Your task to perform on an android device: star an email in the gmail app Image 0: 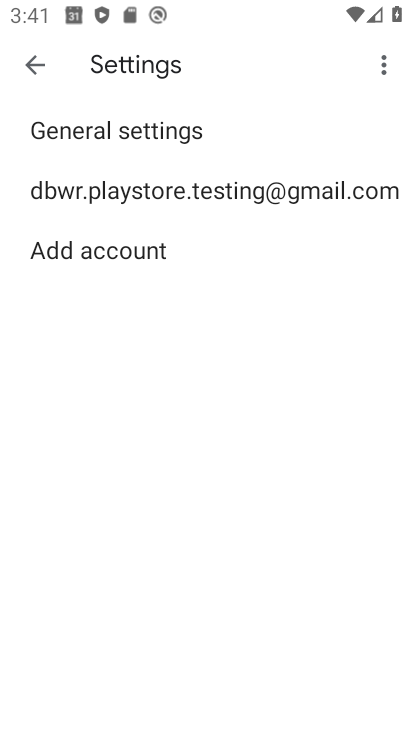
Step 0: press home button
Your task to perform on an android device: star an email in the gmail app Image 1: 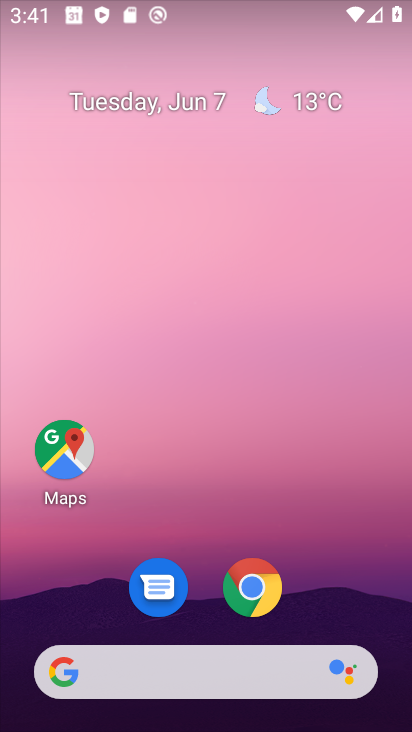
Step 1: drag from (209, 497) to (201, 49)
Your task to perform on an android device: star an email in the gmail app Image 2: 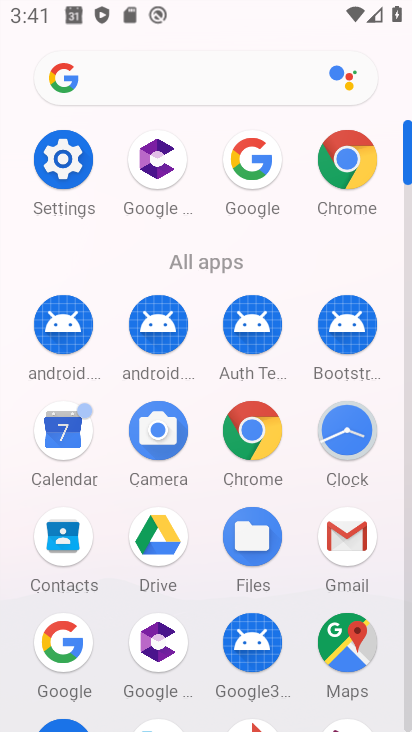
Step 2: click (350, 559)
Your task to perform on an android device: star an email in the gmail app Image 3: 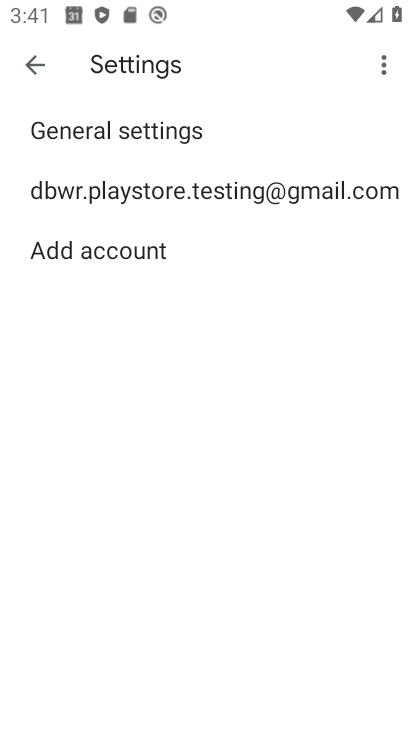
Step 3: click (40, 65)
Your task to perform on an android device: star an email in the gmail app Image 4: 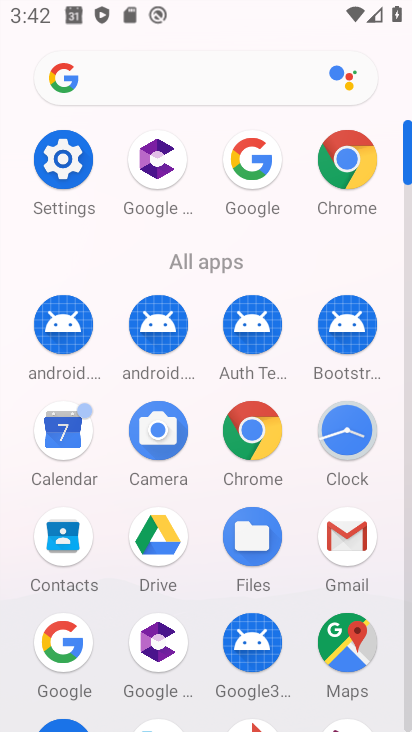
Step 4: click (345, 540)
Your task to perform on an android device: star an email in the gmail app Image 5: 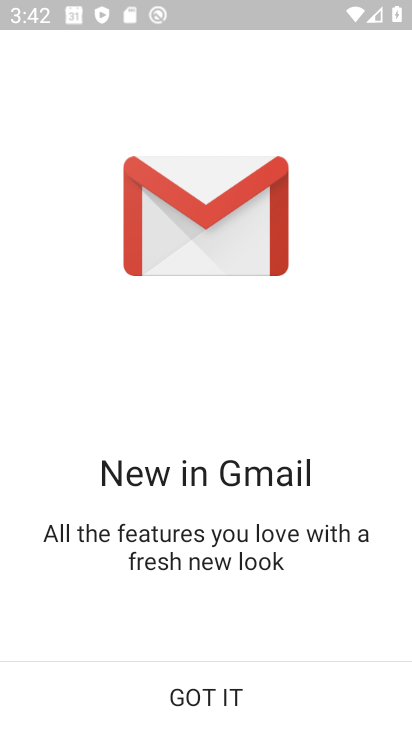
Step 5: click (277, 687)
Your task to perform on an android device: star an email in the gmail app Image 6: 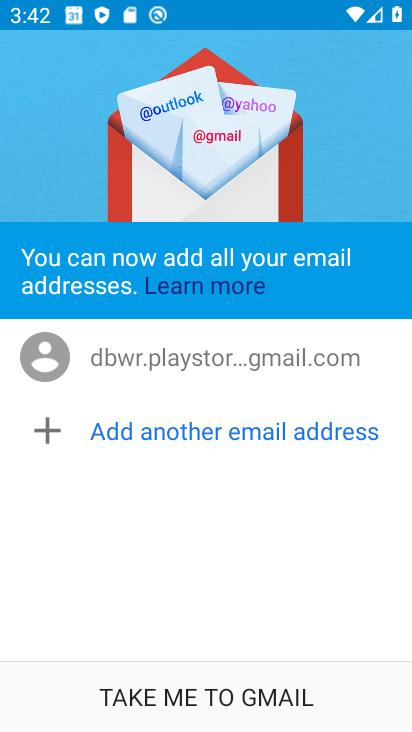
Step 6: click (236, 687)
Your task to perform on an android device: star an email in the gmail app Image 7: 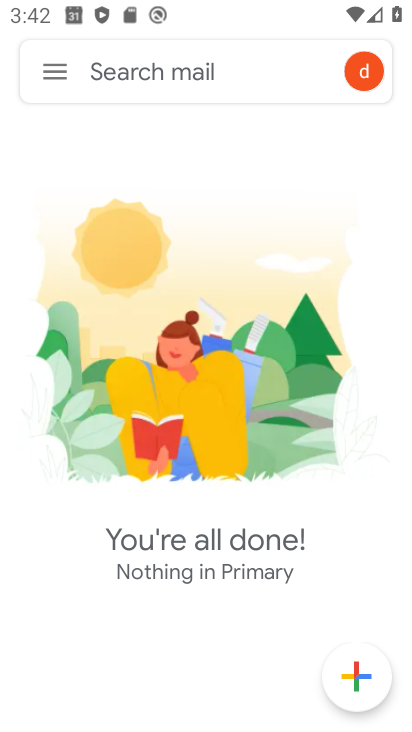
Step 7: click (50, 69)
Your task to perform on an android device: star an email in the gmail app Image 8: 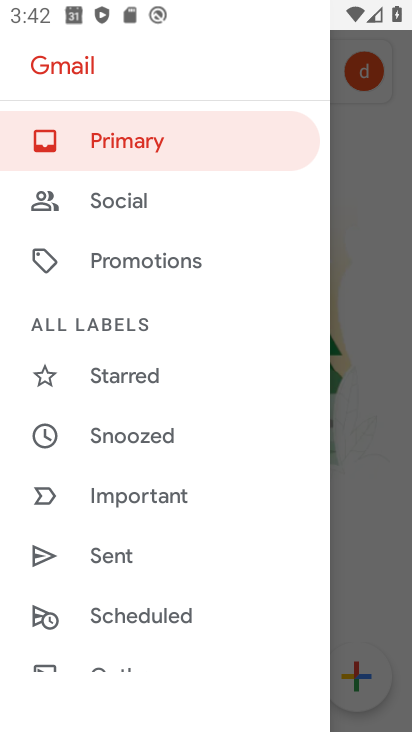
Step 8: drag from (134, 524) to (153, 421)
Your task to perform on an android device: star an email in the gmail app Image 9: 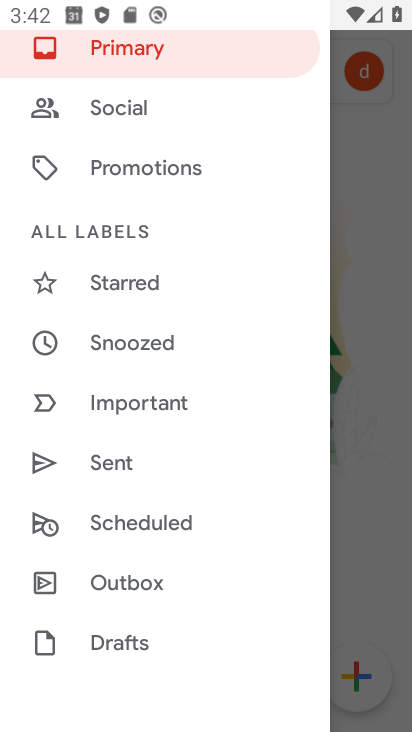
Step 9: drag from (128, 549) to (168, 270)
Your task to perform on an android device: star an email in the gmail app Image 10: 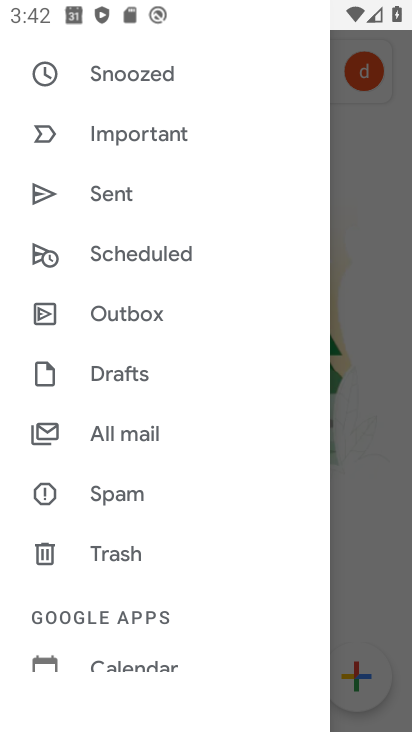
Step 10: click (139, 441)
Your task to perform on an android device: star an email in the gmail app Image 11: 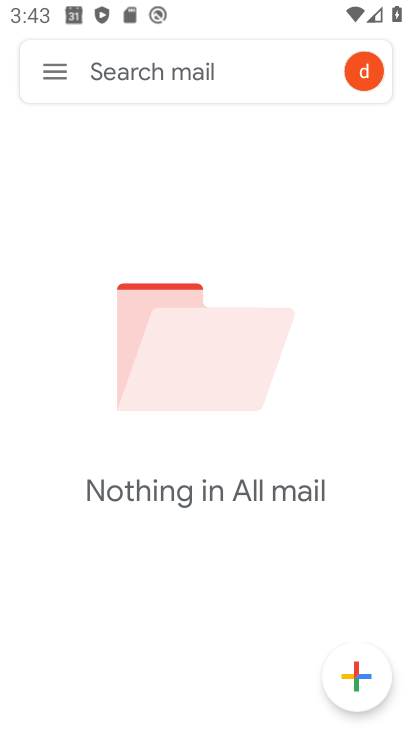
Step 11: task complete